Your task to perform on an android device: see sites visited before in the chrome app Image 0: 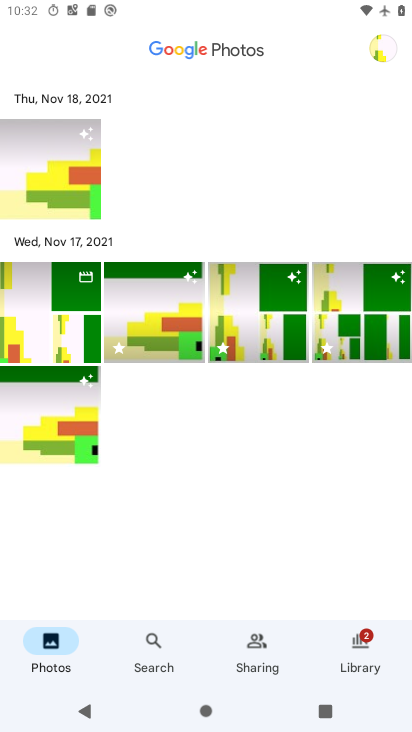
Step 0: press home button
Your task to perform on an android device: see sites visited before in the chrome app Image 1: 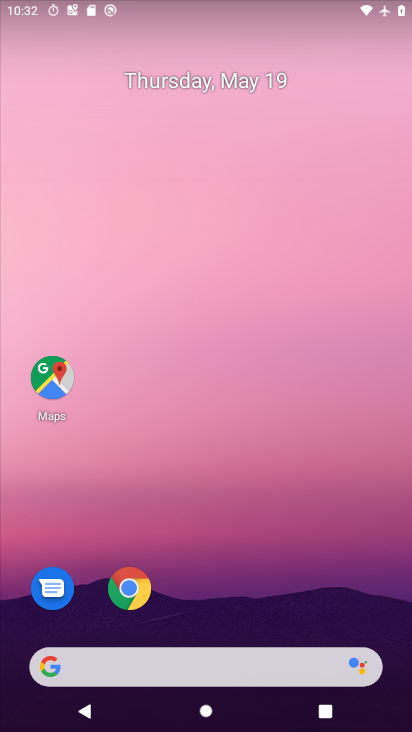
Step 1: click (133, 586)
Your task to perform on an android device: see sites visited before in the chrome app Image 2: 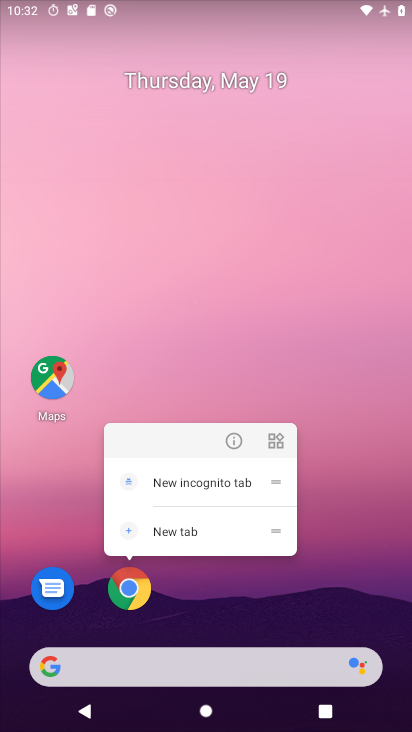
Step 2: click (132, 599)
Your task to perform on an android device: see sites visited before in the chrome app Image 3: 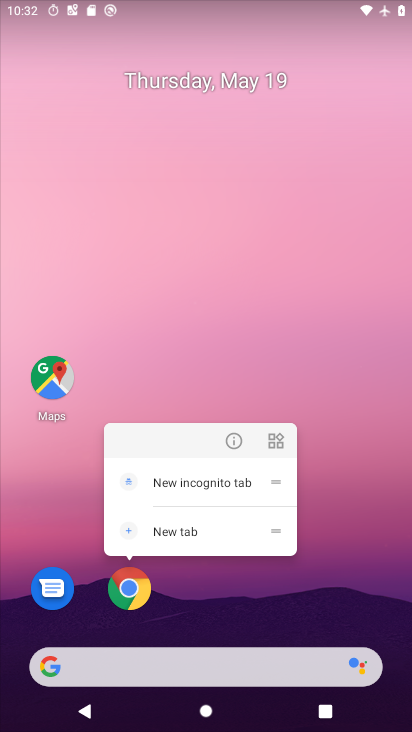
Step 3: click (132, 592)
Your task to perform on an android device: see sites visited before in the chrome app Image 4: 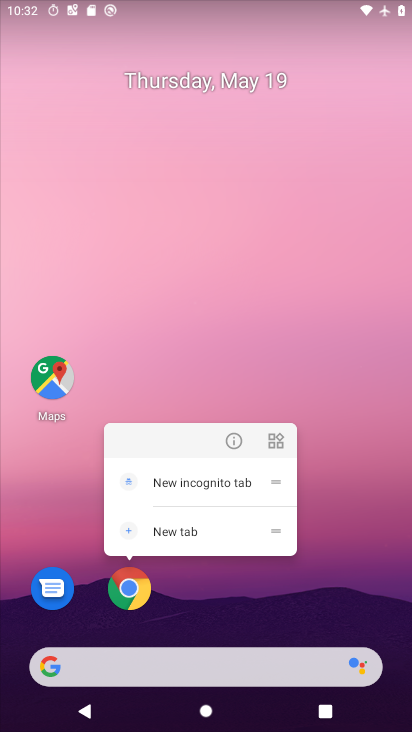
Step 4: click (132, 592)
Your task to perform on an android device: see sites visited before in the chrome app Image 5: 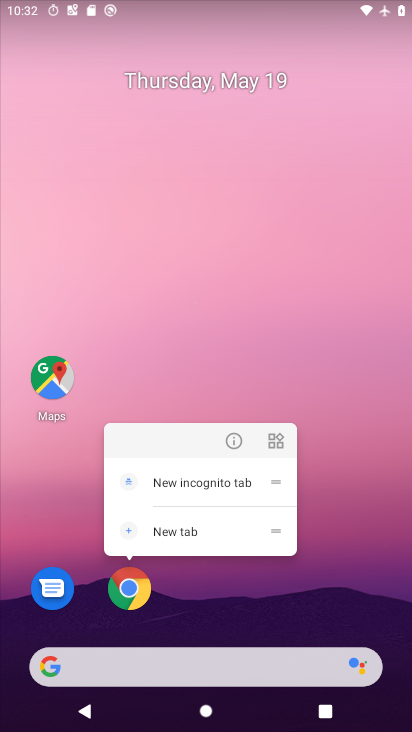
Step 5: click (125, 596)
Your task to perform on an android device: see sites visited before in the chrome app Image 6: 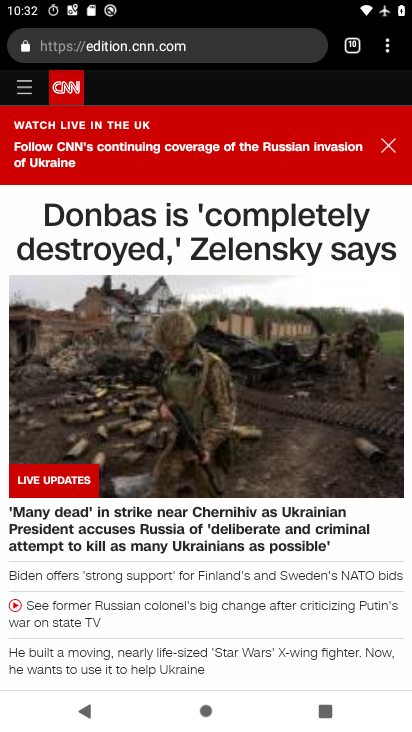
Step 6: task complete